Your task to perform on an android device: turn off javascript in the chrome app Image 0: 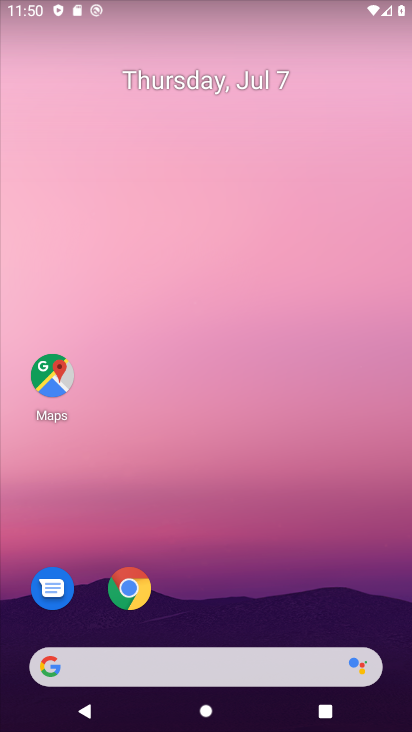
Step 0: click (121, 587)
Your task to perform on an android device: turn off javascript in the chrome app Image 1: 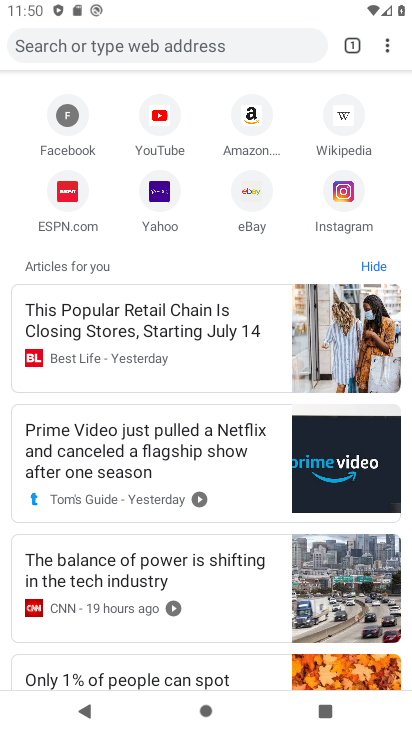
Step 1: click (385, 42)
Your task to perform on an android device: turn off javascript in the chrome app Image 2: 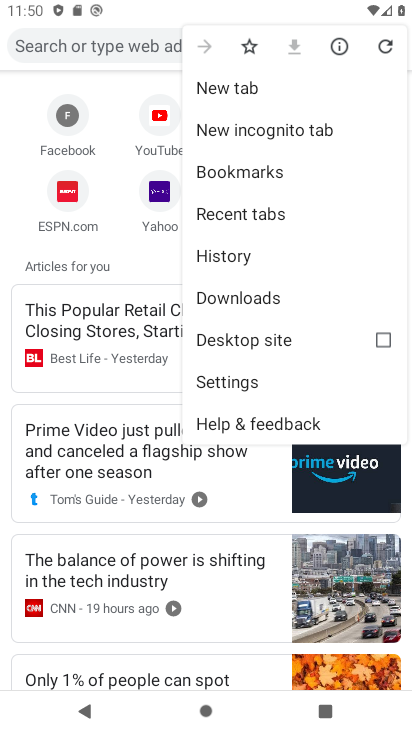
Step 2: click (235, 387)
Your task to perform on an android device: turn off javascript in the chrome app Image 3: 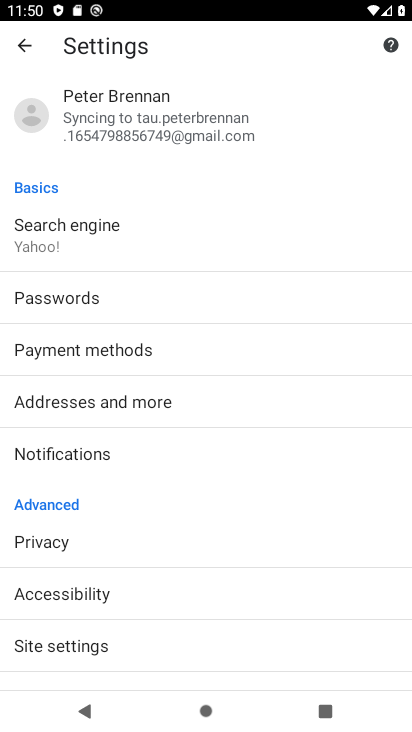
Step 3: click (67, 641)
Your task to perform on an android device: turn off javascript in the chrome app Image 4: 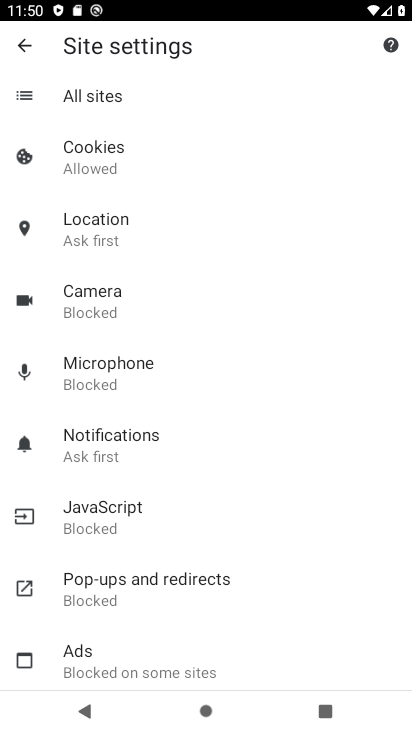
Step 4: click (92, 509)
Your task to perform on an android device: turn off javascript in the chrome app Image 5: 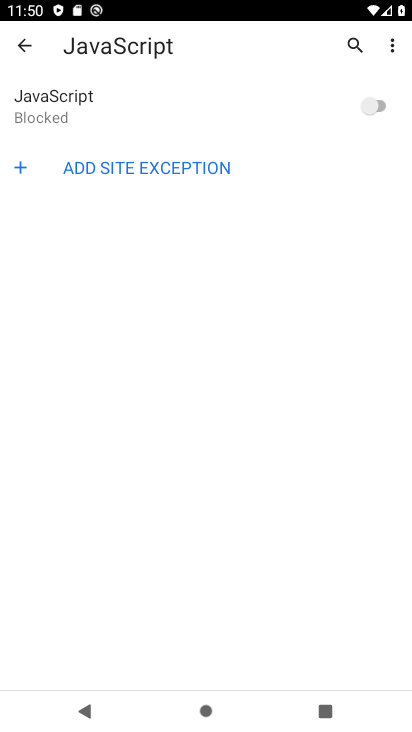
Step 5: task complete